Your task to perform on an android device: Open Youtube and go to "Your channel" Image 0: 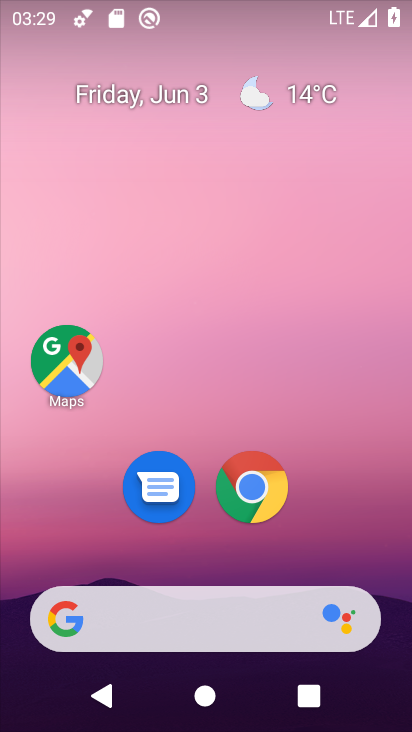
Step 0: drag from (343, 499) to (161, 48)
Your task to perform on an android device: Open Youtube and go to "Your channel" Image 1: 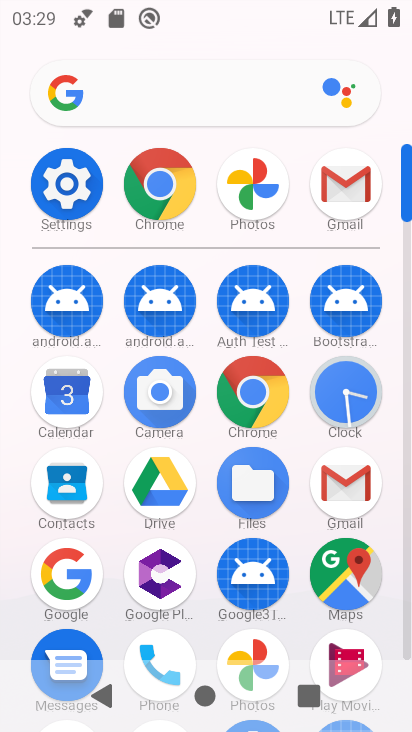
Step 1: drag from (307, 436) to (233, 13)
Your task to perform on an android device: Open Youtube and go to "Your channel" Image 2: 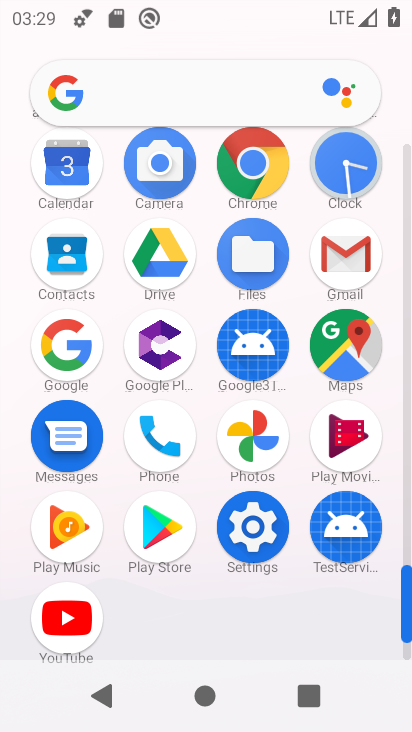
Step 2: click (77, 629)
Your task to perform on an android device: Open Youtube and go to "Your channel" Image 3: 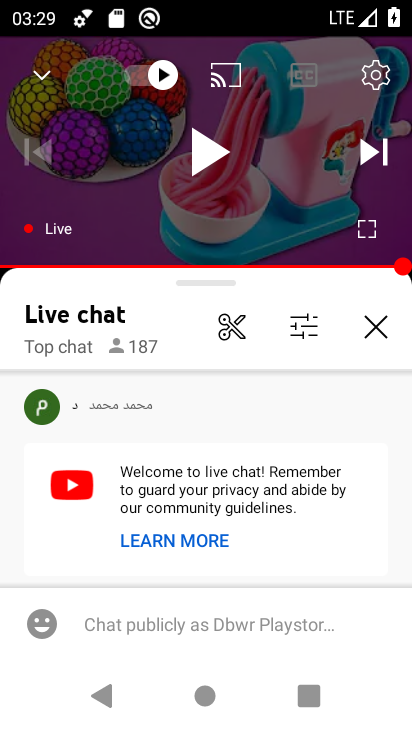
Step 3: press back button
Your task to perform on an android device: Open Youtube and go to "Your channel" Image 4: 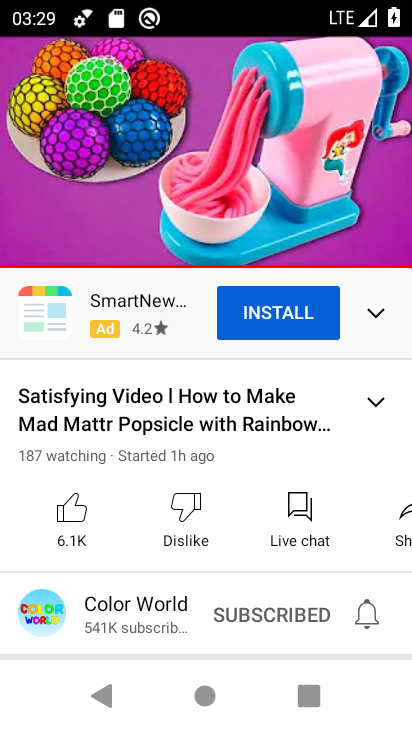
Step 4: press back button
Your task to perform on an android device: Open Youtube and go to "Your channel" Image 5: 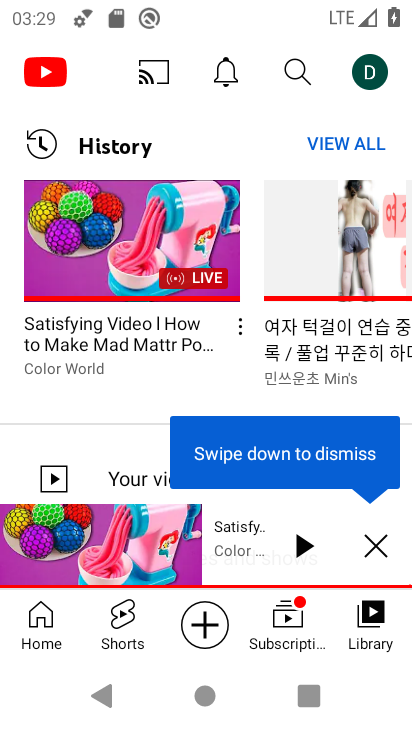
Step 5: click (385, 57)
Your task to perform on an android device: Open Youtube and go to "Your channel" Image 6: 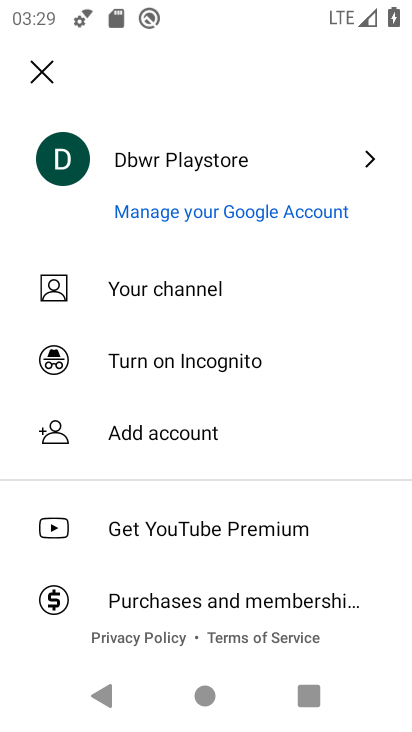
Step 6: click (176, 286)
Your task to perform on an android device: Open Youtube and go to "Your channel" Image 7: 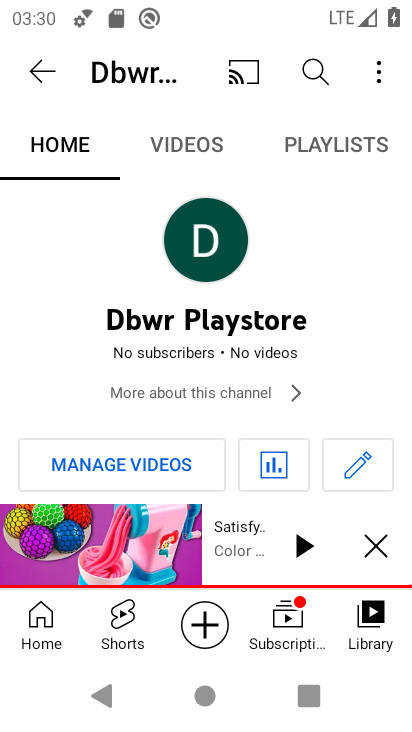
Step 7: task complete